Your task to perform on an android device: open wifi settings Image 0: 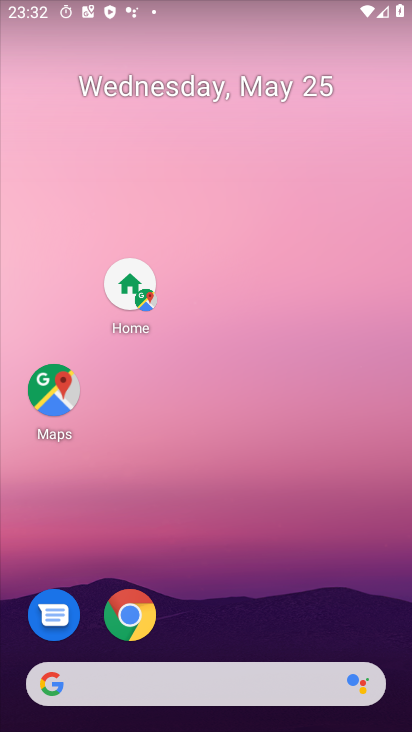
Step 0: drag from (261, 632) to (246, 199)
Your task to perform on an android device: open wifi settings Image 1: 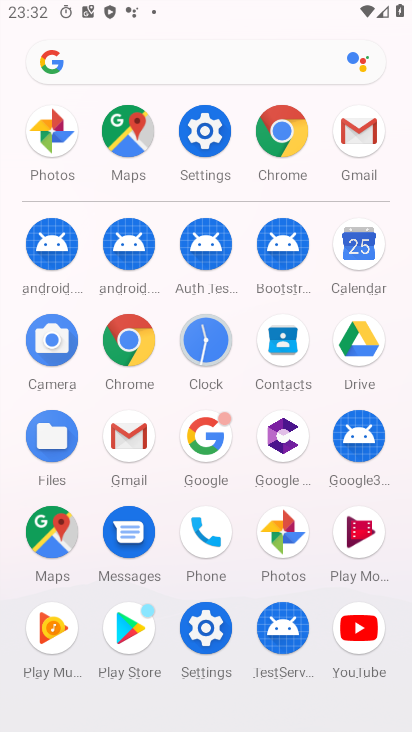
Step 1: click (212, 124)
Your task to perform on an android device: open wifi settings Image 2: 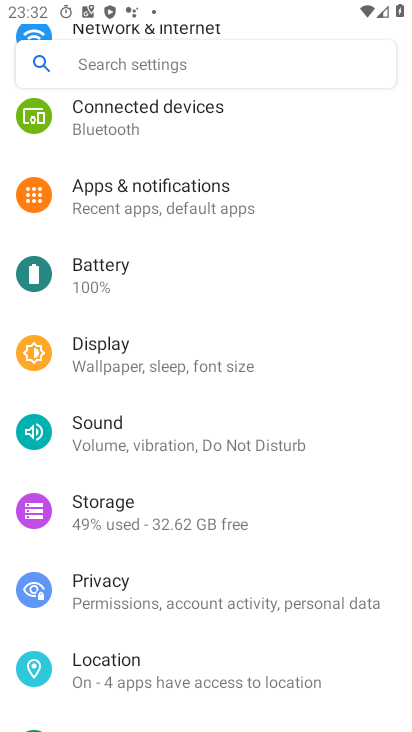
Step 2: drag from (273, 153) to (253, 712)
Your task to perform on an android device: open wifi settings Image 3: 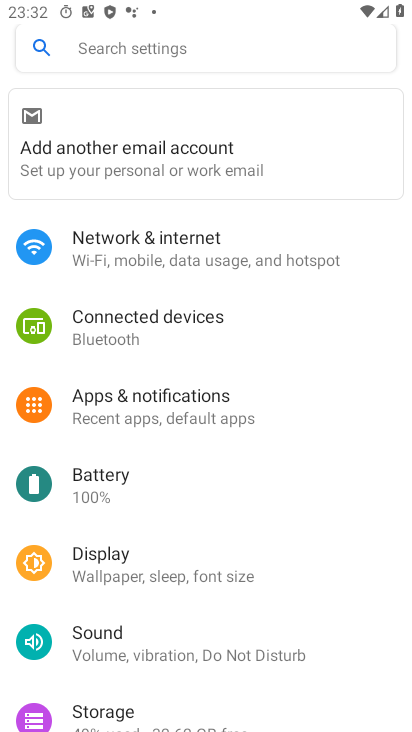
Step 3: click (137, 252)
Your task to perform on an android device: open wifi settings Image 4: 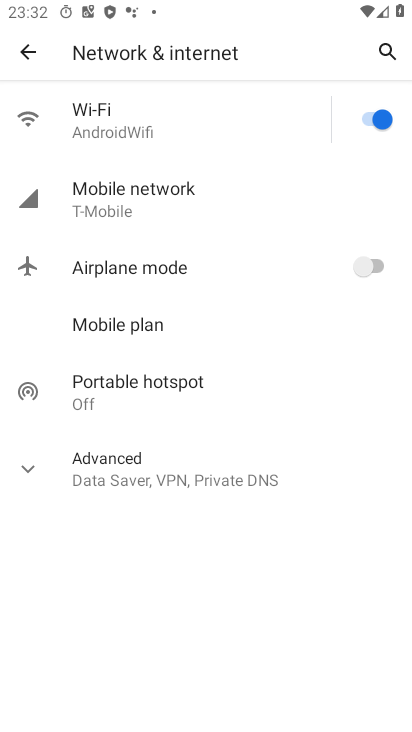
Step 4: click (101, 107)
Your task to perform on an android device: open wifi settings Image 5: 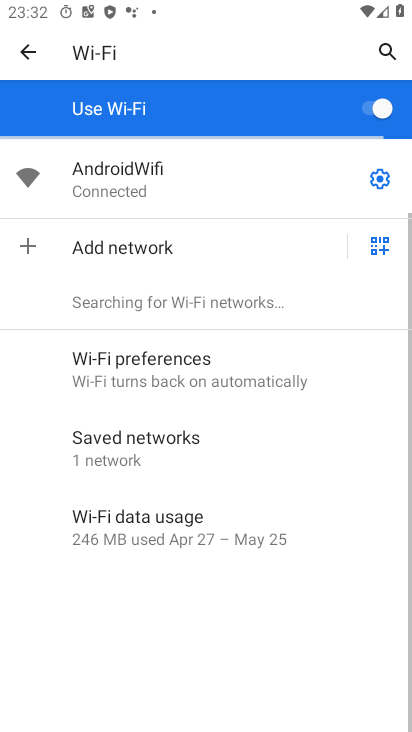
Step 5: task complete